Your task to perform on an android device: clear history in the chrome app Image 0: 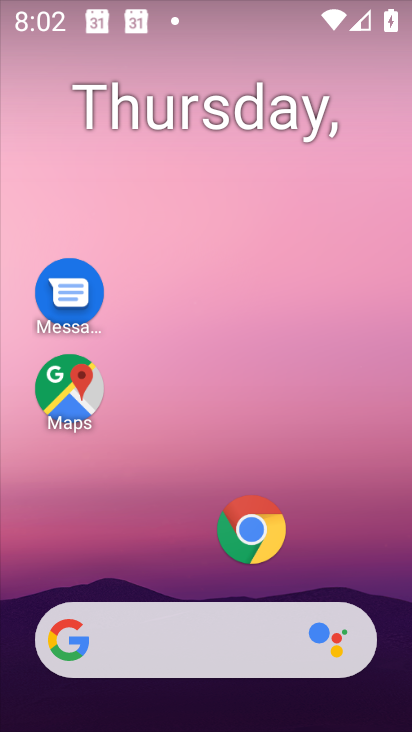
Step 0: click (252, 540)
Your task to perform on an android device: clear history in the chrome app Image 1: 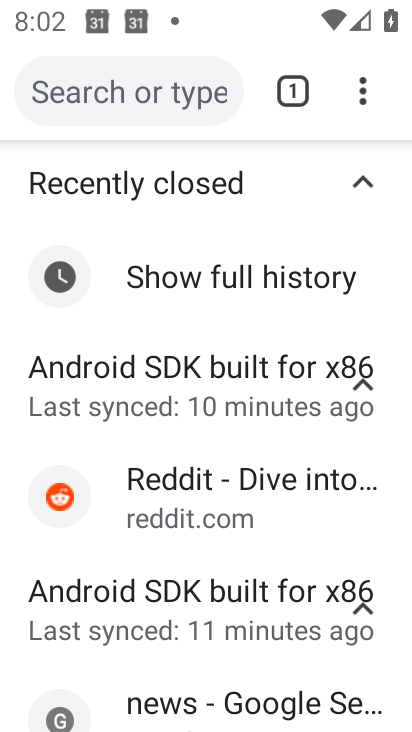
Step 1: click (353, 85)
Your task to perform on an android device: clear history in the chrome app Image 2: 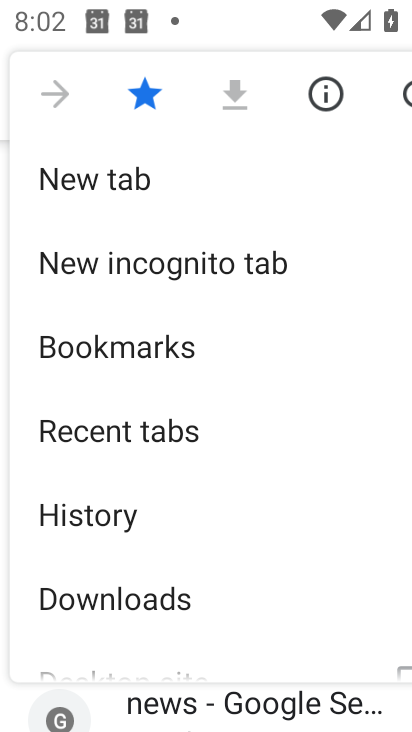
Step 2: click (156, 512)
Your task to perform on an android device: clear history in the chrome app Image 3: 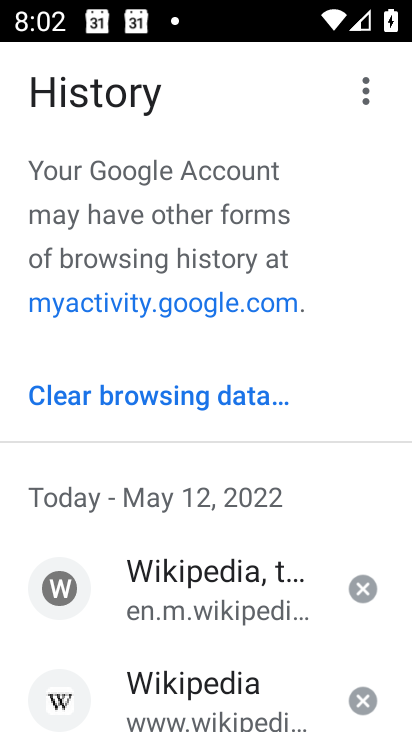
Step 3: click (204, 385)
Your task to perform on an android device: clear history in the chrome app Image 4: 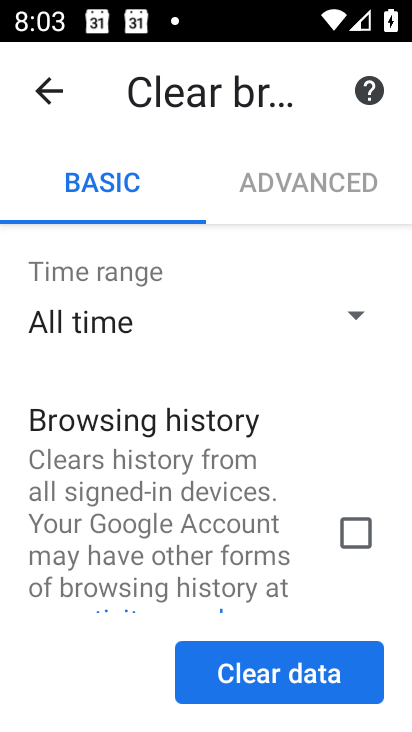
Step 4: click (355, 532)
Your task to perform on an android device: clear history in the chrome app Image 5: 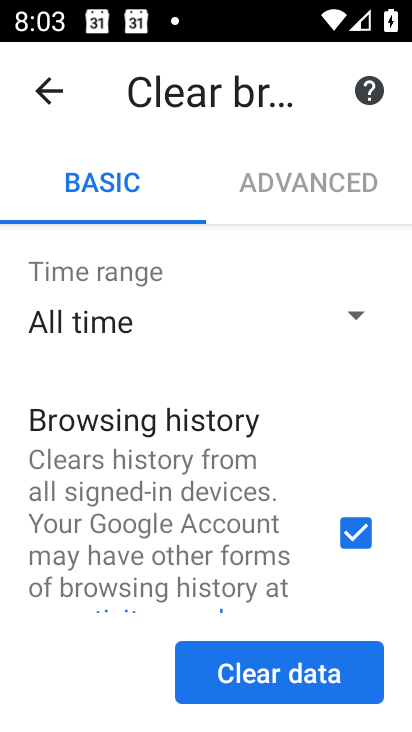
Step 5: click (302, 689)
Your task to perform on an android device: clear history in the chrome app Image 6: 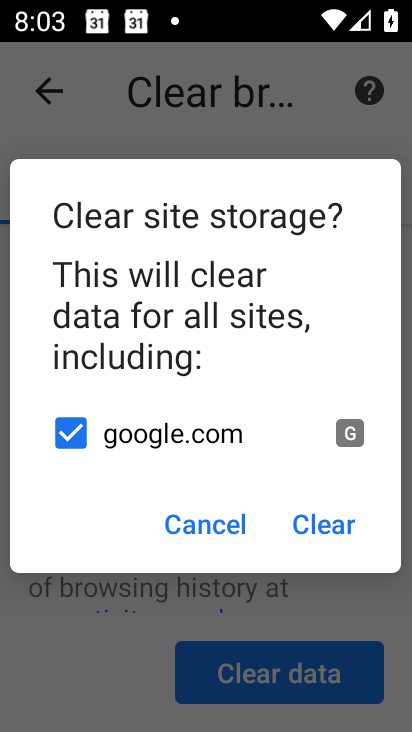
Step 6: click (355, 523)
Your task to perform on an android device: clear history in the chrome app Image 7: 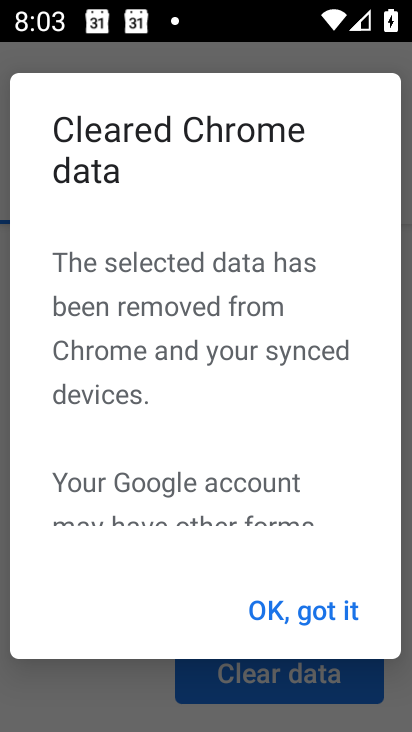
Step 7: task complete